Your task to perform on an android device: change text size in settings app Image 0: 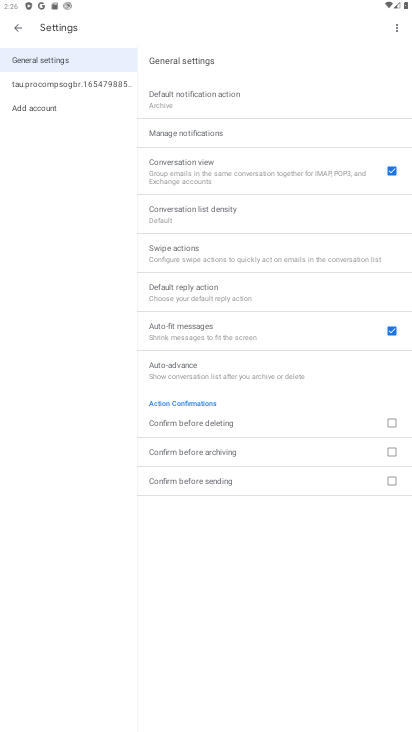
Step 0: press home button
Your task to perform on an android device: change text size in settings app Image 1: 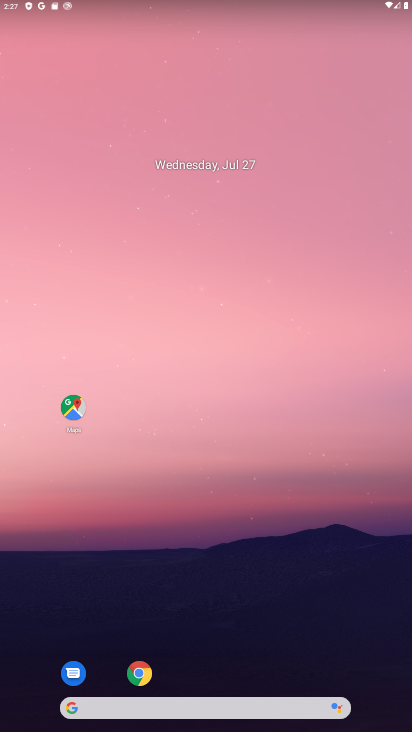
Step 1: drag from (169, 720) to (174, 32)
Your task to perform on an android device: change text size in settings app Image 2: 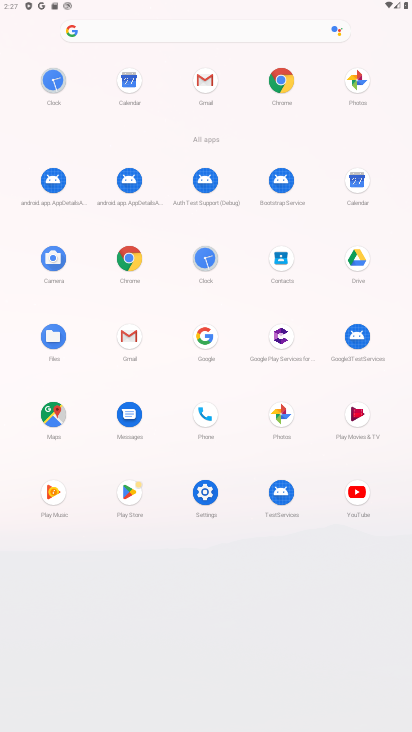
Step 2: click (204, 487)
Your task to perform on an android device: change text size in settings app Image 3: 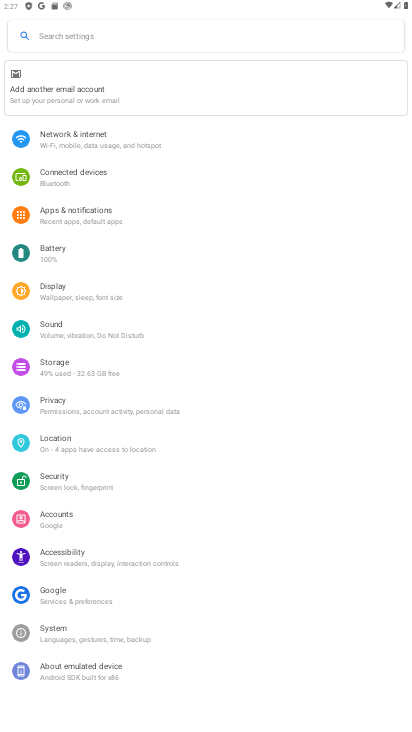
Step 3: click (117, 289)
Your task to perform on an android device: change text size in settings app Image 4: 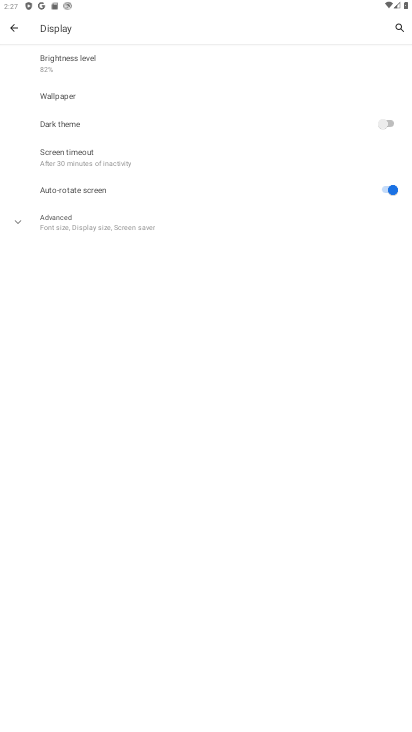
Step 4: click (142, 229)
Your task to perform on an android device: change text size in settings app Image 5: 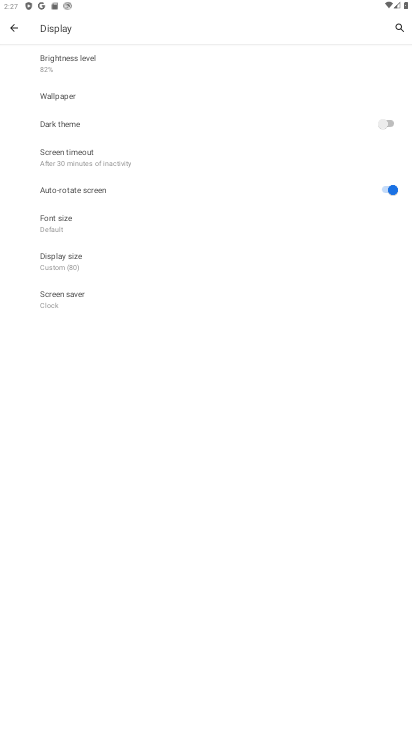
Step 5: click (78, 225)
Your task to perform on an android device: change text size in settings app Image 6: 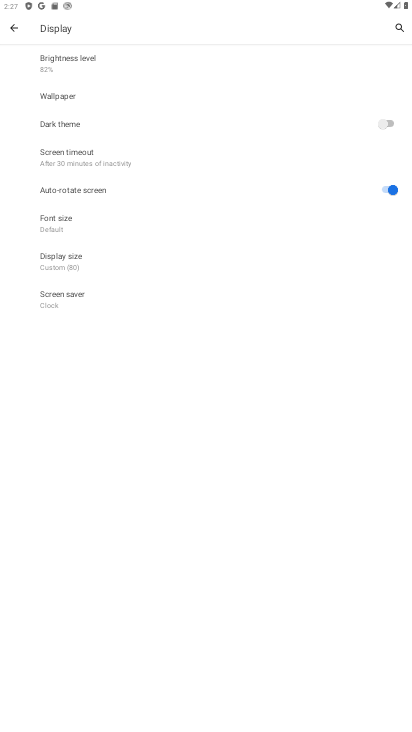
Step 6: click (78, 225)
Your task to perform on an android device: change text size in settings app Image 7: 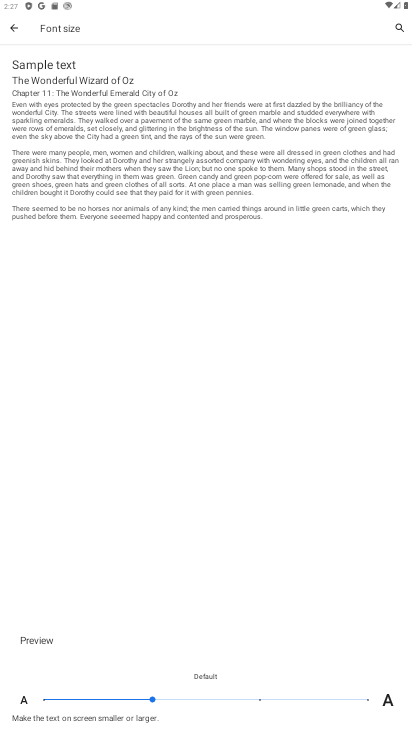
Step 7: click (252, 701)
Your task to perform on an android device: change text size in settings app Image 8: 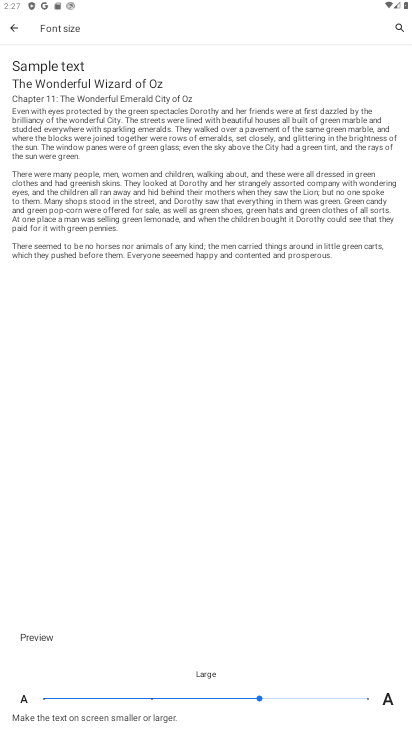
Step 8: task complete